Your task to perform on an android device: Open display settings Image 0: 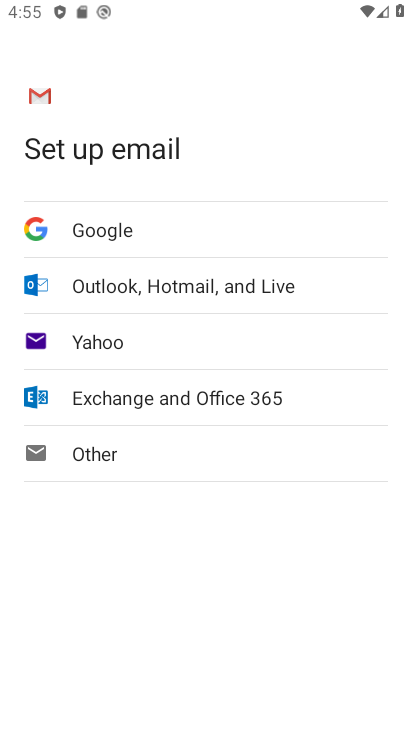
Step 0: drag from (259, 593) to (287, 96)
Your task to perform on an android device: Open display settings Image 1: 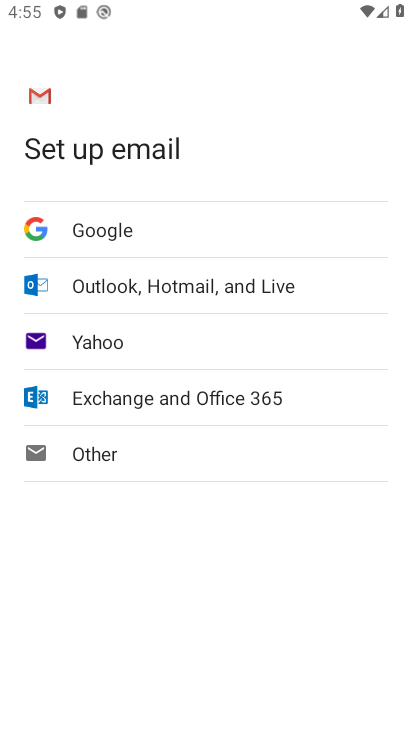
Step 1: press home button
Your task to perform on an android device: Open display settings Image 2: 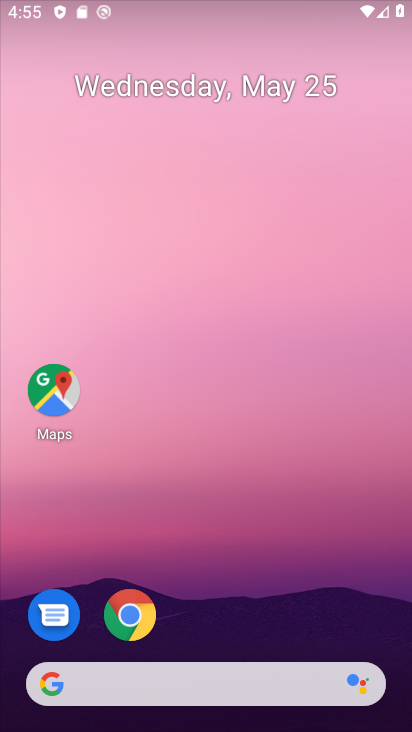
Step 2: drag from (303, 637) to (231, 39)
Your task to perform on an android device: Open display settings Image 3: 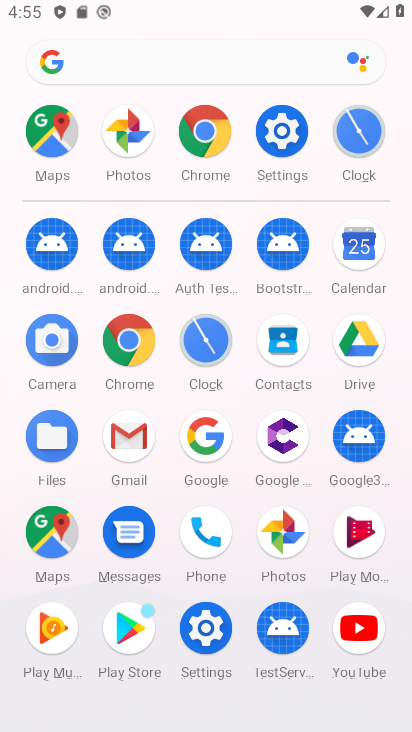
Step 3: click (192, 648)
Your task to perform on an android device: Open display settings Image 4: 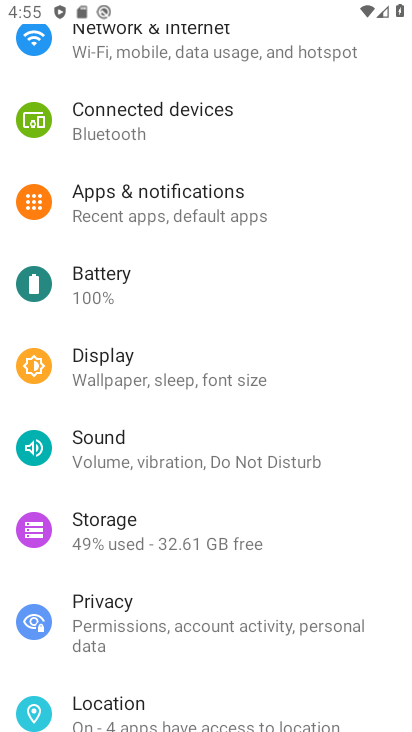
Step 4: click (168, 378)
Your task to perform on an android device: Open display settings Image 5: 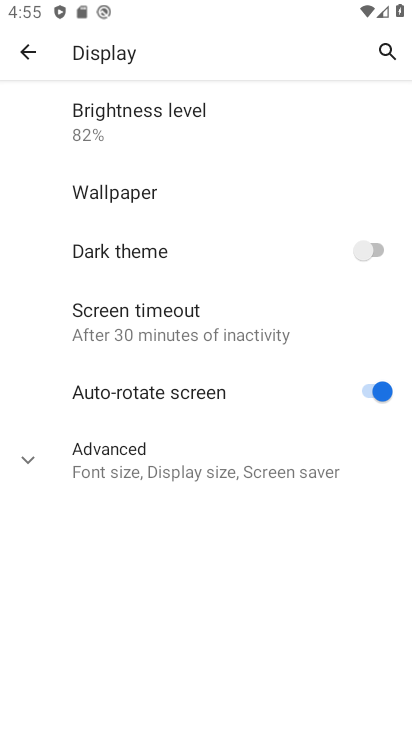
Step 5: task complete